Your task to perform on an android device: Search for vegetarian restaurants on Maps Image 0: 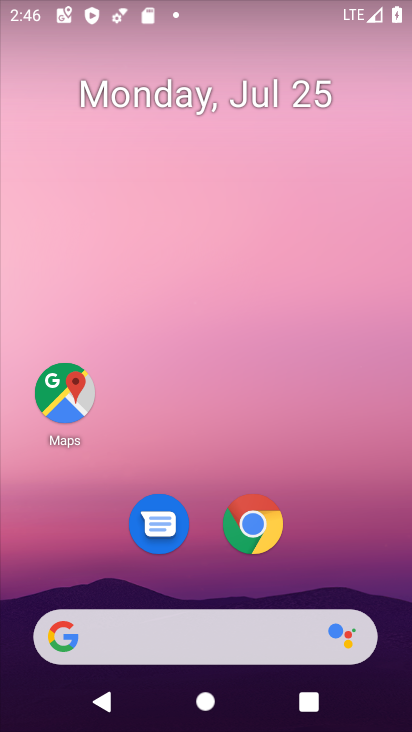
Step 0: click (67, 404)
Your task to perform on an android device: Search for vegetarian restaurants on Maps Image 1: 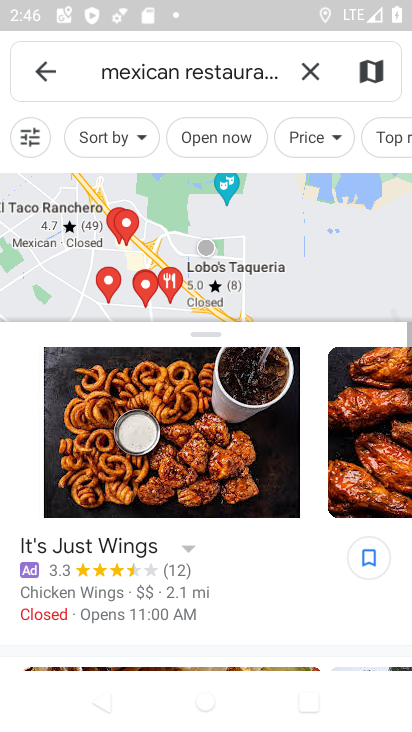
Step 1: click (312, 71)
Your task to perform on an android device: Search for vegetarian restaurants on Maps Image 2: 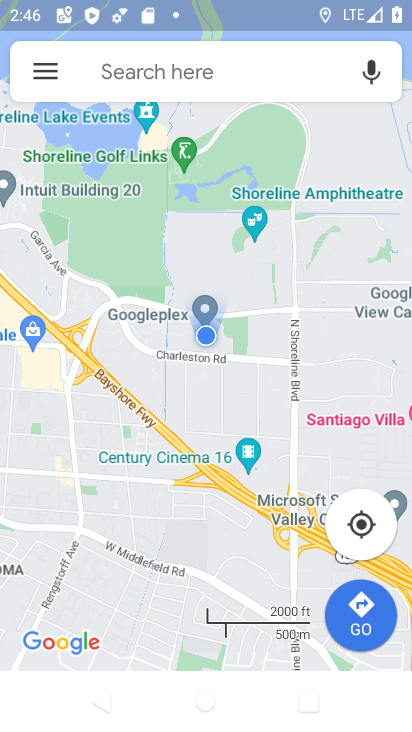
Step 2: click (275, 81)
Your task to perform on an android device: Search for vegetarian restaurants on Maps Image 3: 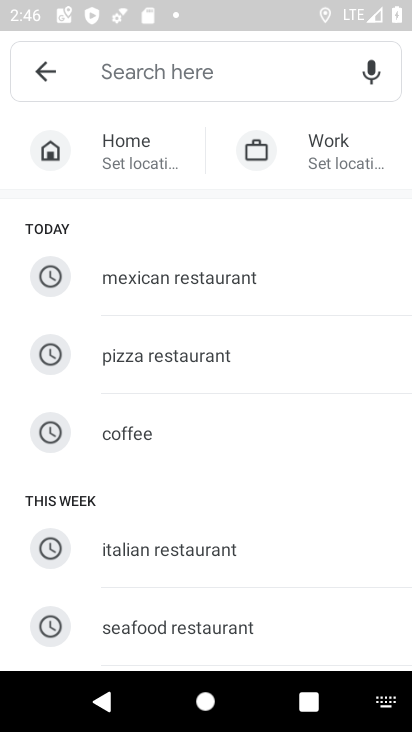
Step 3: drag from (251, 534) to (282, 145)
Your task to perform on an android device: Search for vegetarian restaurants on Maps Image 4: 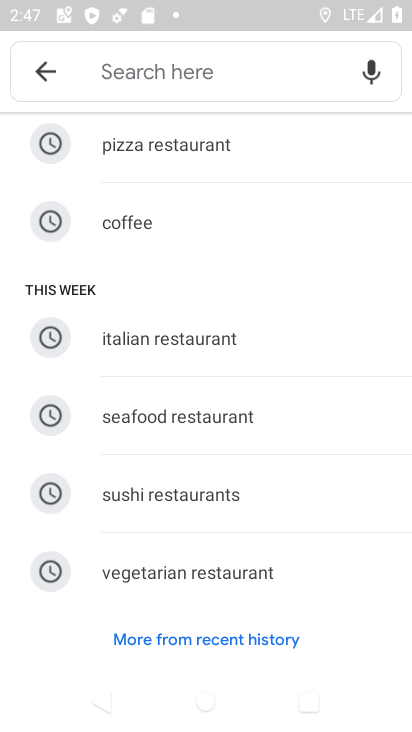
Step 4: click (199, 568)
Your task to perform on an android device: Search for vegetarian restaurants on Maps Image 5: 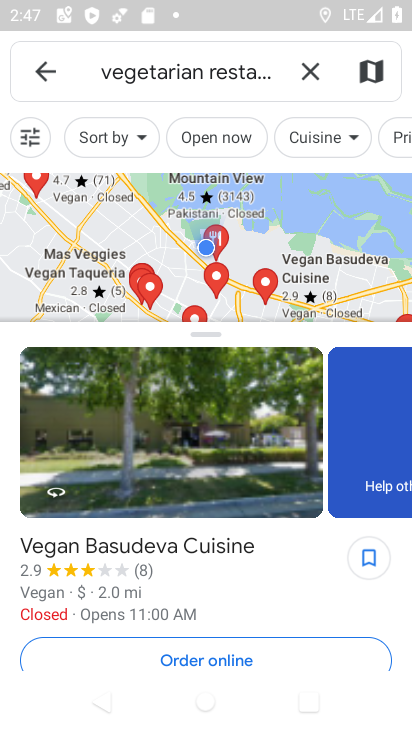
Step 5: task complete